Your task to perform on an android device: What's the weather? Image 0: 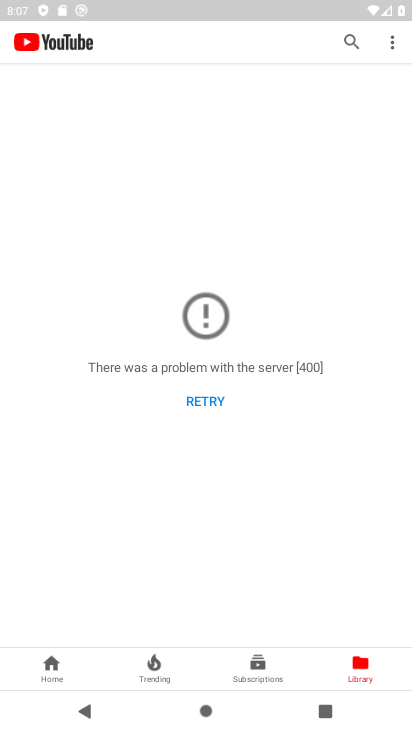
Step 0: press home button
Your task to perform on an android device: What's the weather? Image 1: 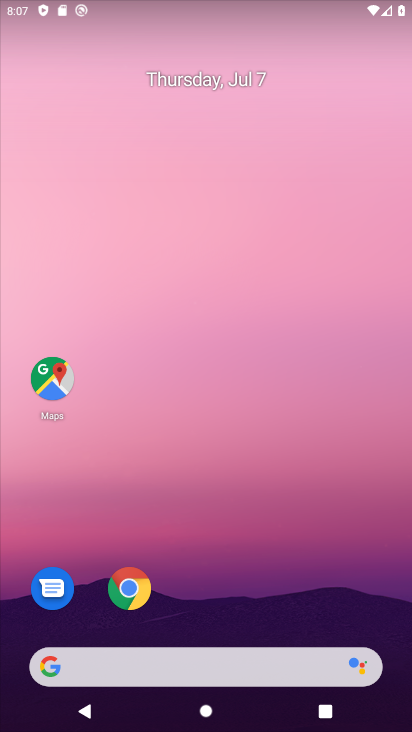
Step 1: click (199, 663)
Your task to perform on an android device: What's the weather? Image 2: 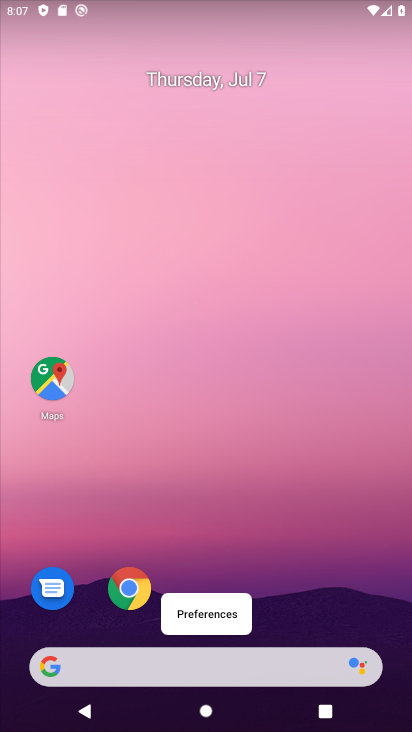
Step 2: click (202, 665)
Your task to perform on an android device: What's the weather? Image 3: 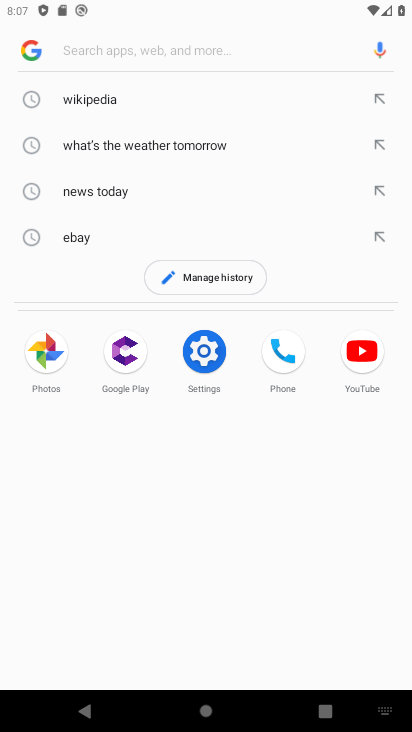
Step 3: type "weather"
Your task to perform on an android device: What's the weather? Image 4: 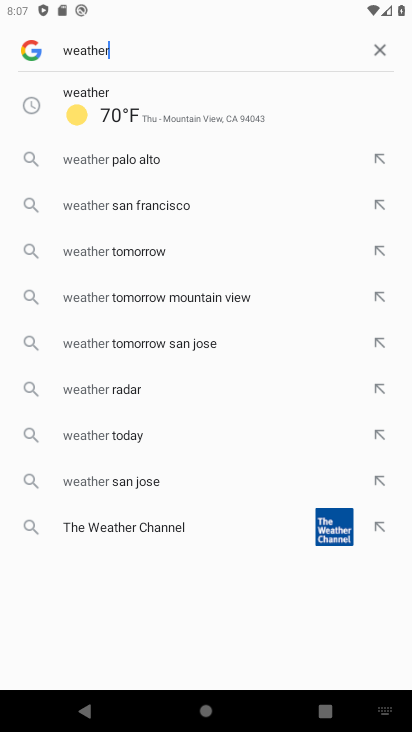
Step 4: click (168, 120)
Your task to perform on an android device: What's the weather? Image 5: 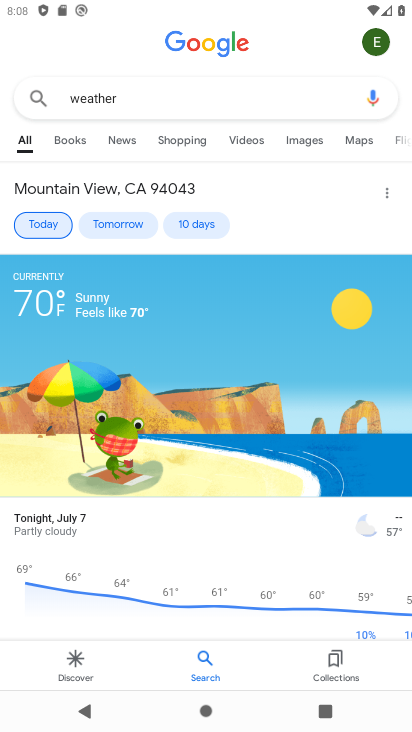
Step 5: task complete